Your task to perform on an android device: allow cookies in the chrome app Image 0: 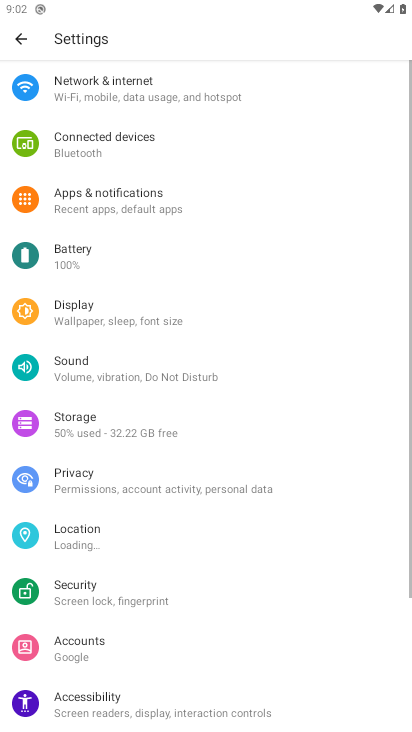
Step 0: press home button
Your task to perform on an android device: allow cookies in the chrome app Image 1: 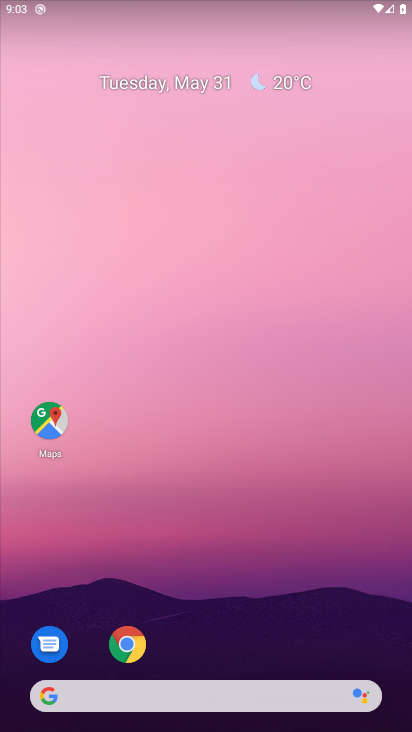
Step 1: click (127, 645)
Your task to perform on an android device: allow cookies in the chrome app Image 2: 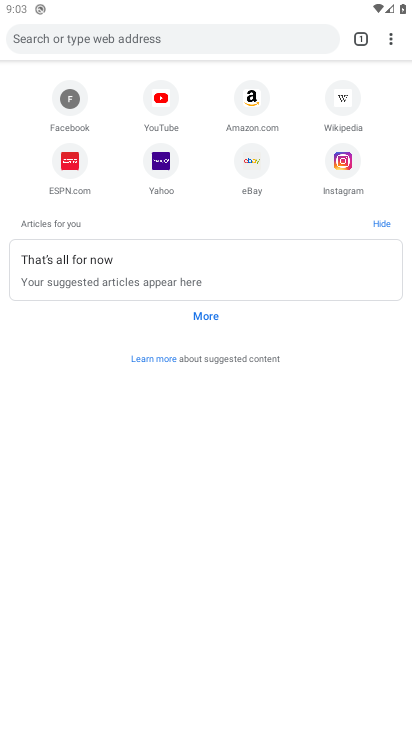
Step 2: click (389, 42)
Your task to perform on an android device: allow cookies in the chrome app Image 3: 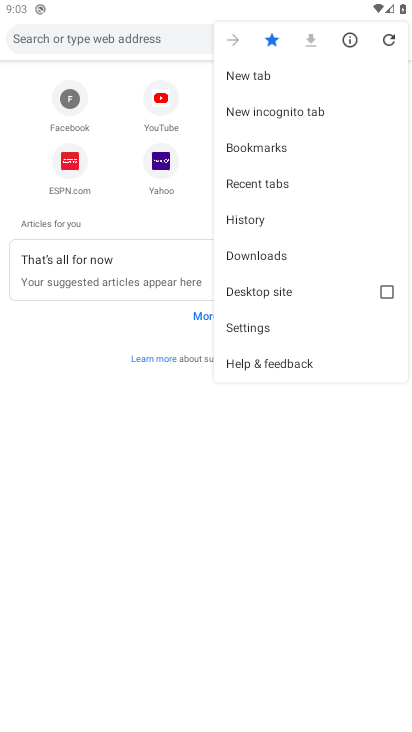
Step 3: click (272, 326)
Your task to perform on an android device: allow cookies in the chrome app Image 4: 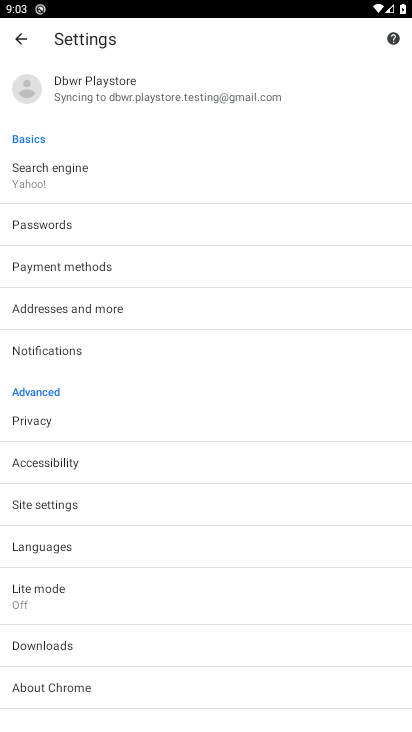
Step 4: click (94, 505)
Your task to perform on an android device: allow cookies in the chrome app Image 5: 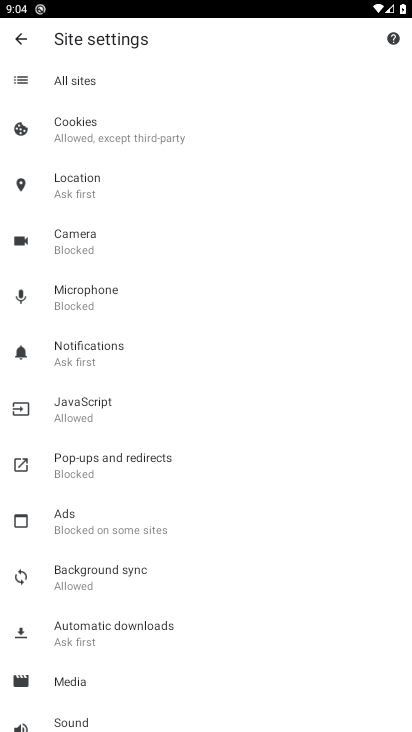
Step 5: click (83, 119)
Your task to perform on an android device: allow cookies in the chrome app Image 6: 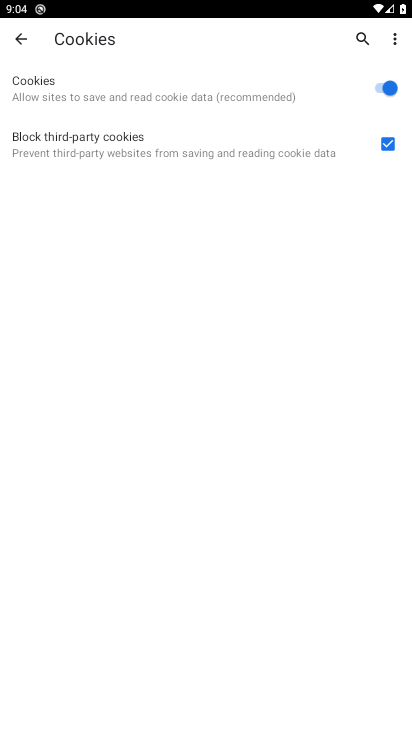
Step 6: task complete